Your task to perform on an android device: turn off location history Image 0: 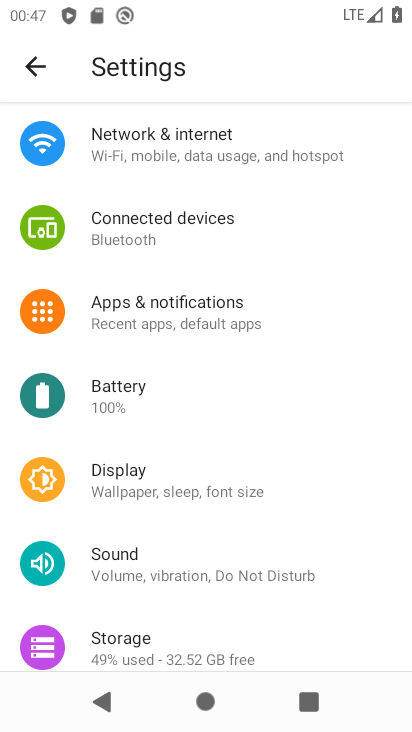
Step 0: press home button
Your task to perform on an android device: turn off location history Image 1: 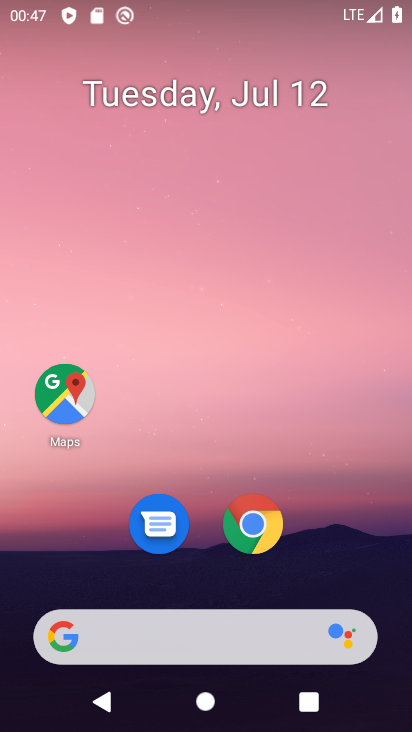
Step 1: drag from (329, 520) to (296, 30)
Your task to perform on an android device: turn off location history Image 2: 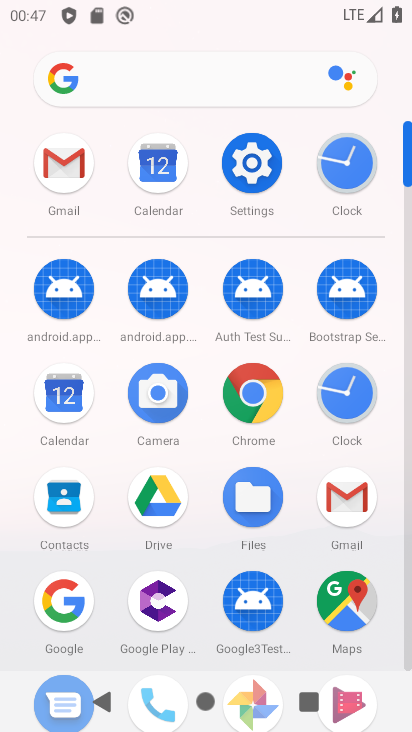
Step 2: click (260, 172)
Your task to perform on an android device: turn off location history Image 3: 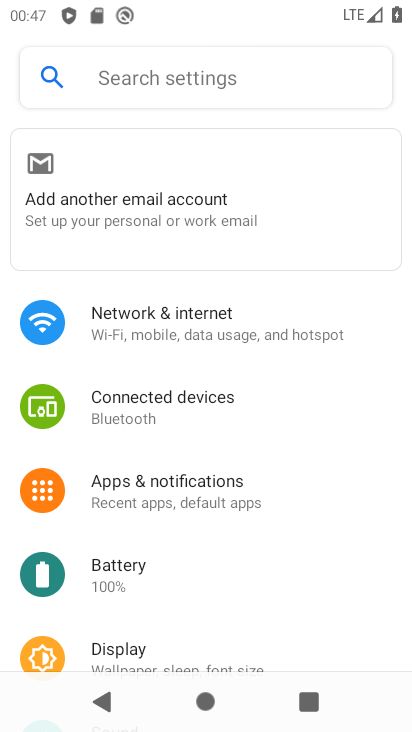
Step 3: drag from (269, 451) to (254, 0)
Your task to perform on an android device: turn off location history Image 4: 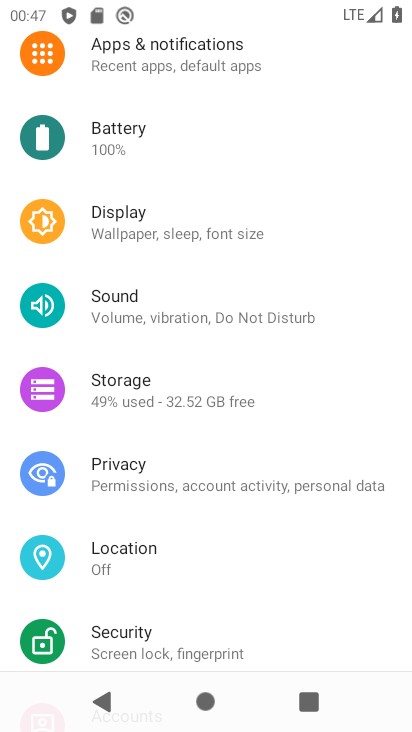
Step 4: click (132, 543)
Your task to perform on an android device: turn off location history Image 5: 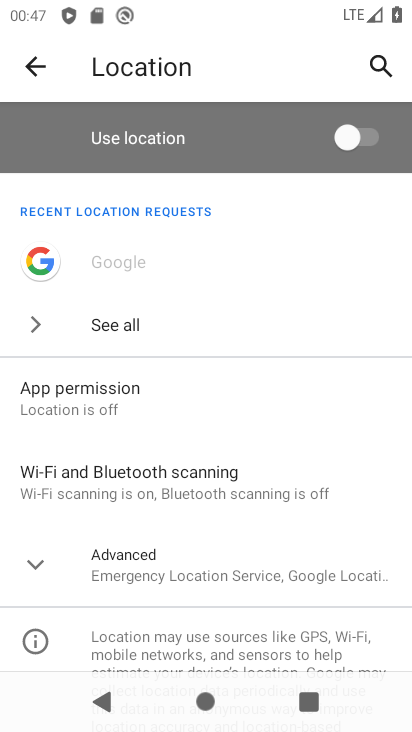
Step 5: click (30, 558)
Your task to perform on an android device: turn off location history Image 6: 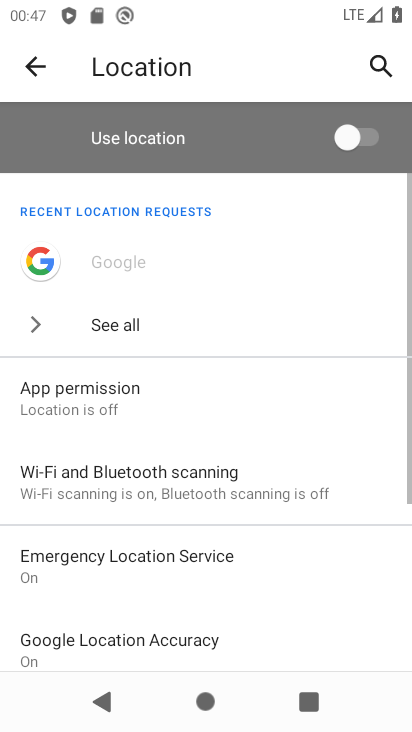
Step 6: drag from (299, 446) to (371, 73)
Your task to perform on an android device: turn off location history Image 7: 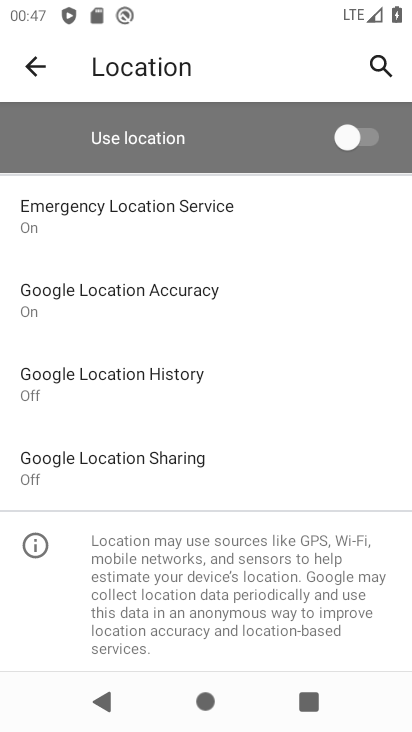
Step 7: click (157, 376)
Your task to perform on an android device: turn off location history Image 8: 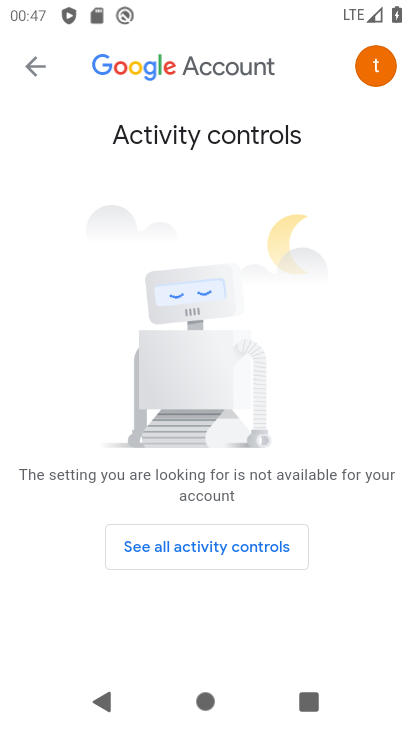
Step 8: click (244, 546)
Your task to perform on an android device: turn off location history Image 9: 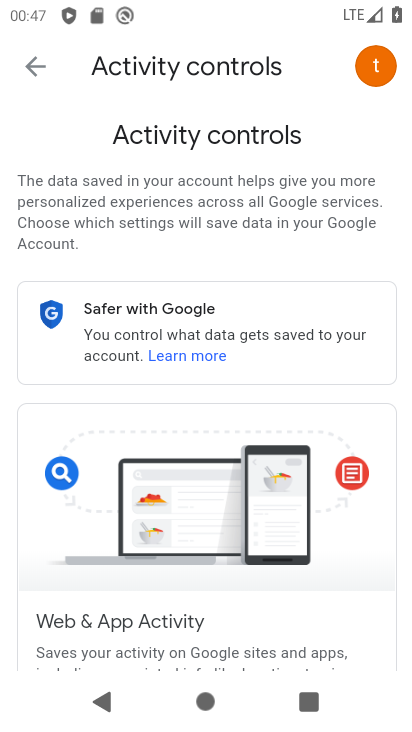
Step 9: drag from (219, 487) to (248, 165)
Your task to perform on an android device: turn off location history Image 10: 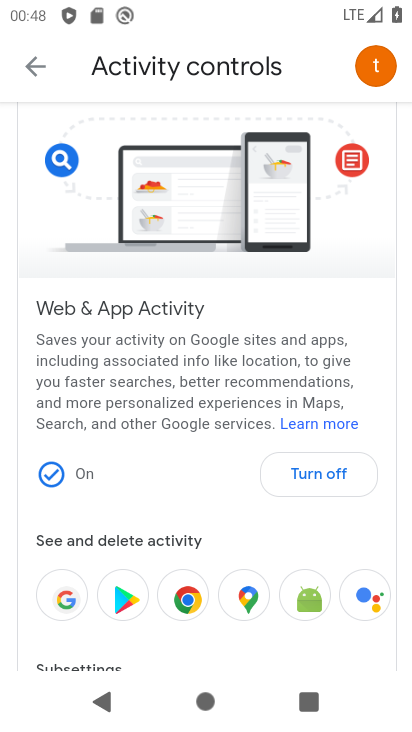
Step 10: click (298, 470)
Your task to perform on an android device: turn off location history Image 11: 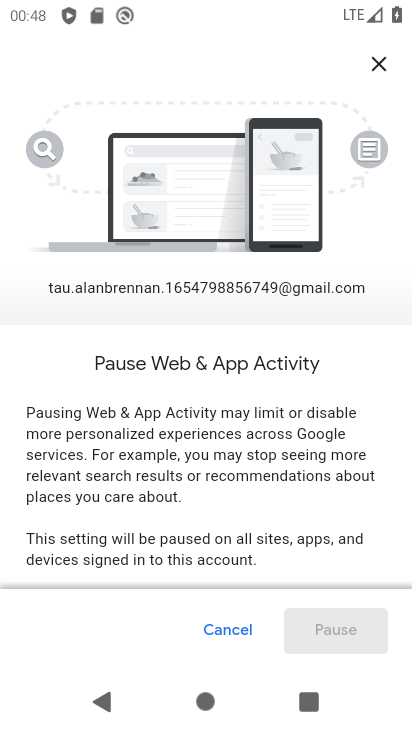
Step 11: drag from (299, 487) to (381, 0)
Your task to perform on an android device: turn off location history Image 12: 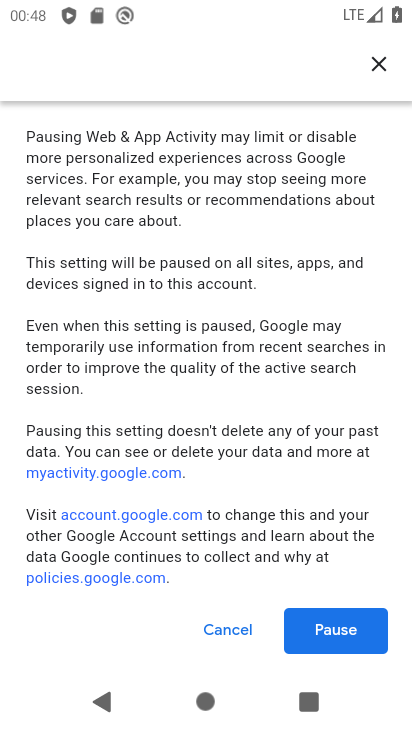
Step 12: click (349, 622)
Your task to perform on an android device: turn off location history Image 13: 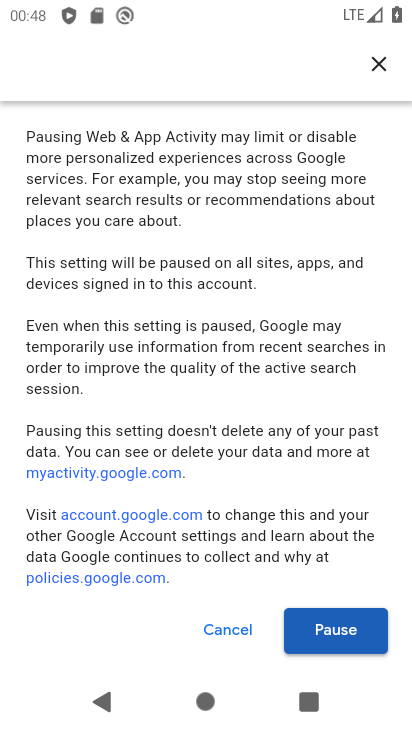
Step 13: click (351, 636)
Your task to perform on an android device: turn off location history Image 14: 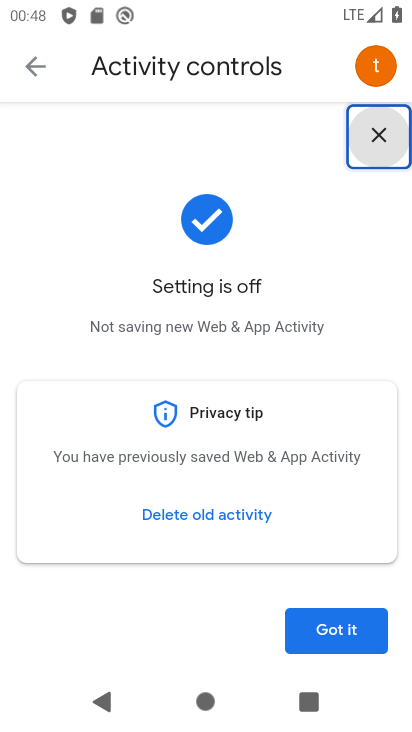
Step 14: click (352, 634)
Your task to perform on an android device: turn off location history Image 15: 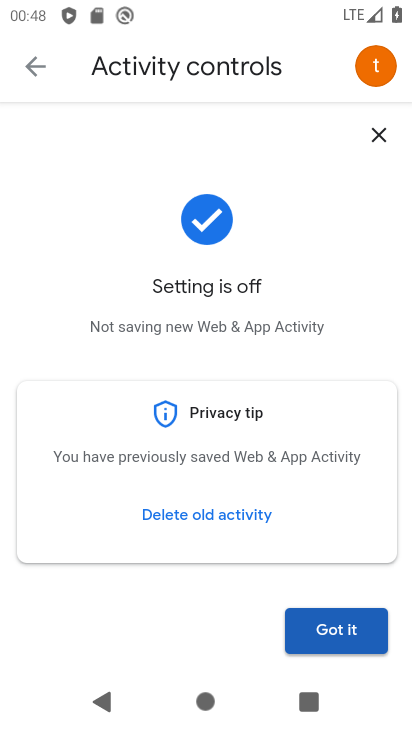
Step 15: click (354, 630)
Your task to perform on an android device: turn off location history Image 16: 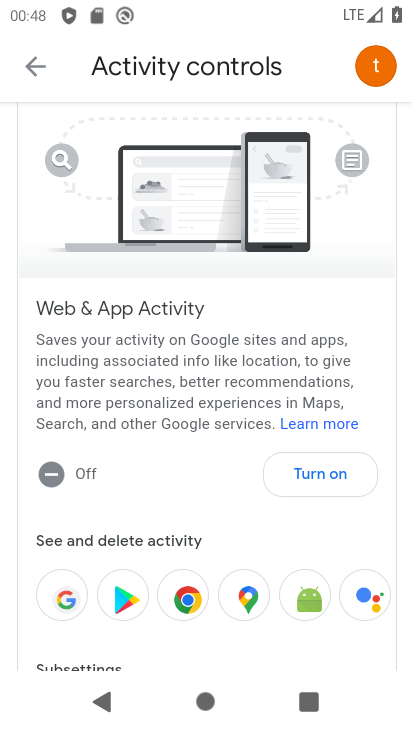
Step 16: task complete